Your task to perform on an android device: Toggle the flashlight Image 0: 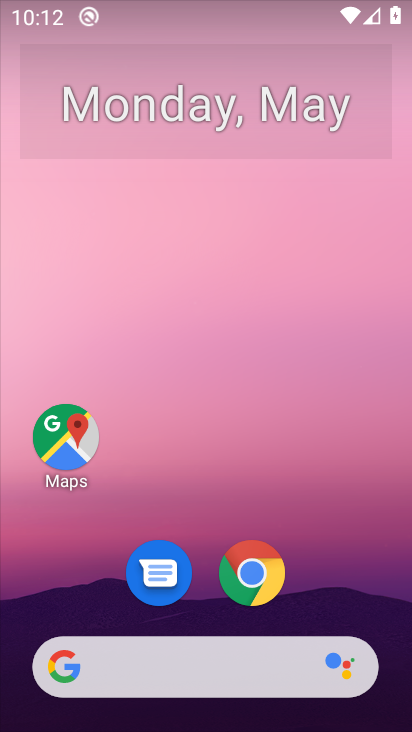
Step 0: drag from (111, 561) to (164, 153)
Your task to perform on an android device: Toggle the flashlight Image 1: 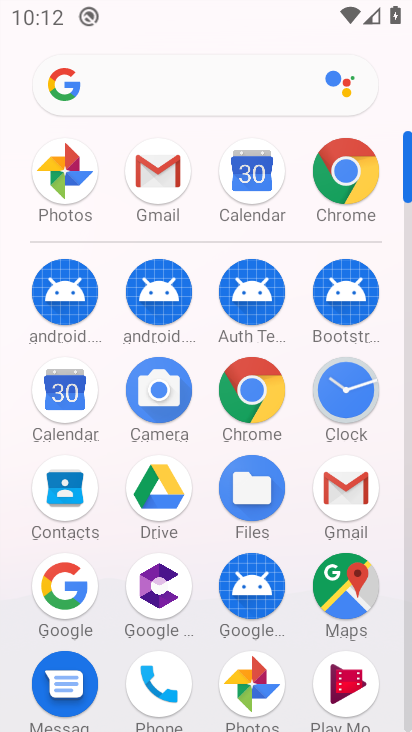
Step 1: drag from (165, 616) to (248, 111)
Your task to perform on an android device: Toggle the flashlight Image 2: 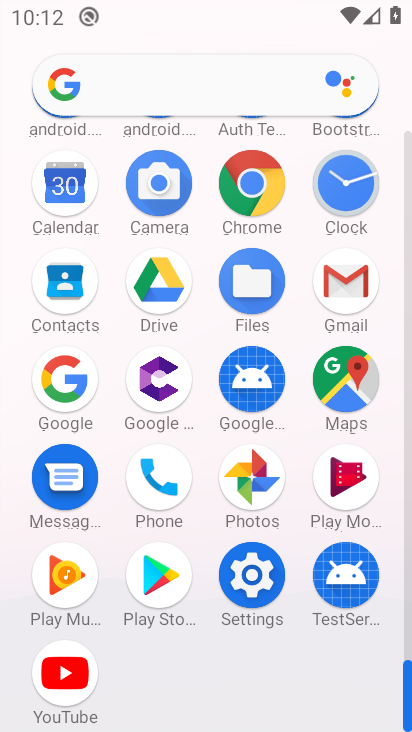
Step 2: click (252, 569)
Your task to perform on an android device: Toggle the flashlight Image 3: 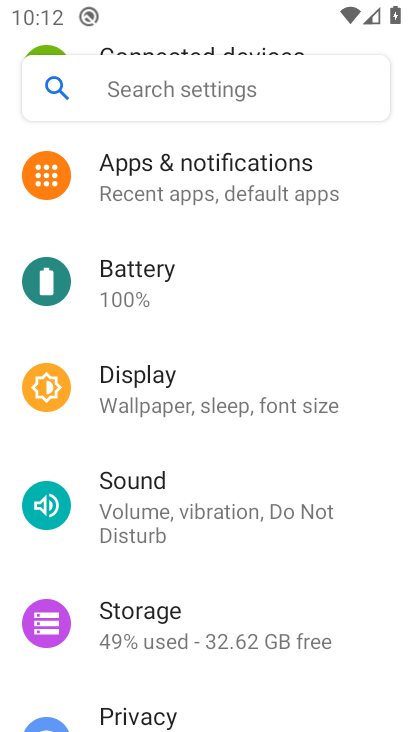
Step 3: click (181, 87)
Your task to perform on an android device: Toggle the flashlight Image 4: 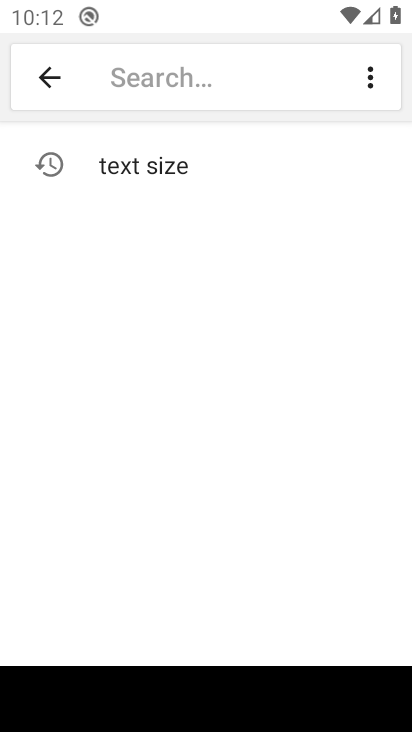
Step 4: type "flashlight"
Your task to perform on an android device: Toggle the flashlight Image 5: 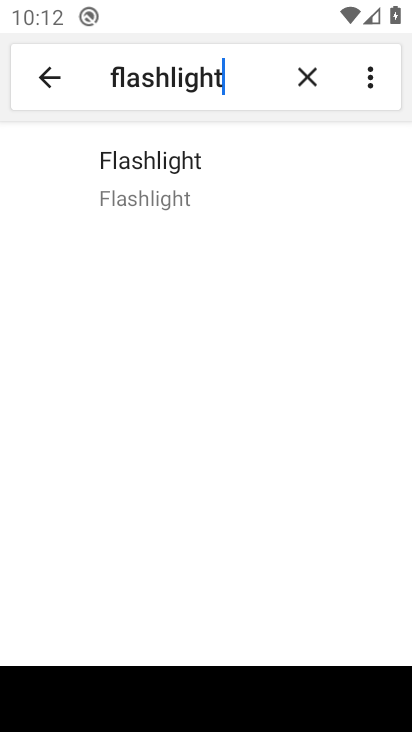
Step 5: click (143, 177)
Your task to perform on an android device: Toggle the flashlight Image 6: 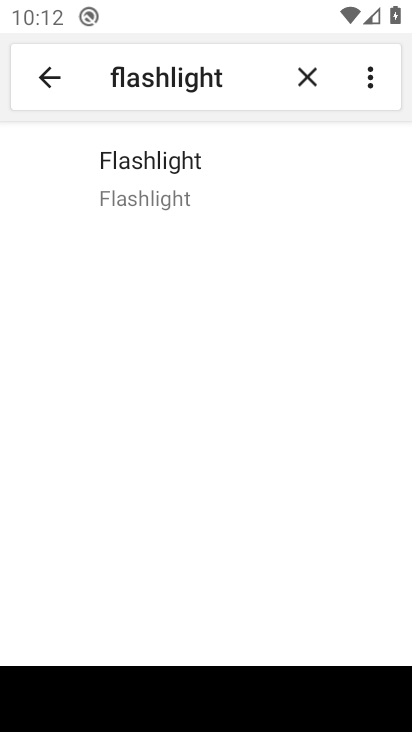
Step 6: task complete